Your task to perform on an android device: Open accessibility settings Image 0: 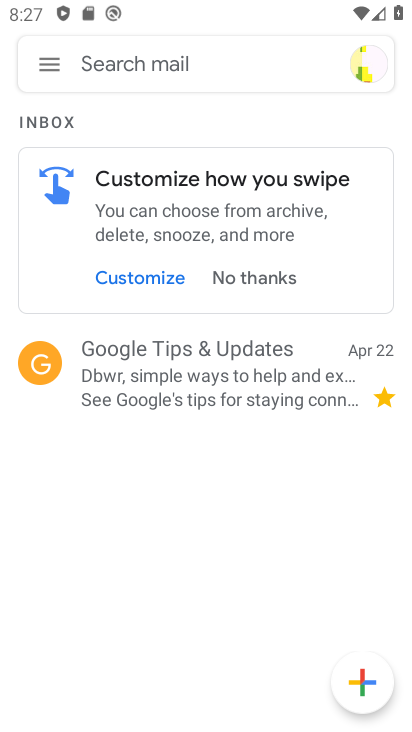
Step 0: press home button
Your task to perform on an android device: Open accessibility settings Image 1: 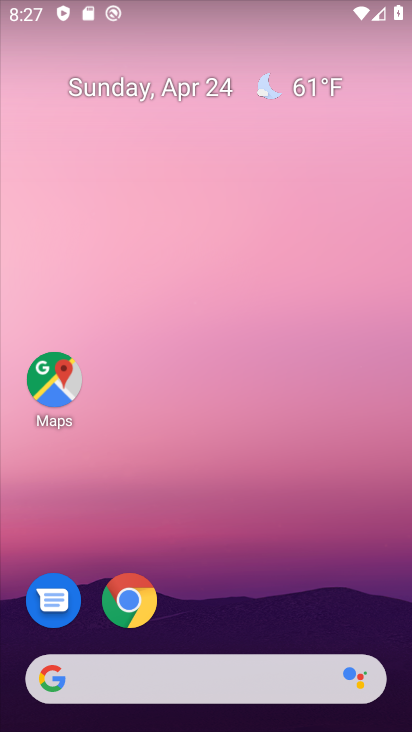
Step 1: drag from (213, 694) to (211, 188)
Your task to perform on an android device: Open accessibility settings Image 2: 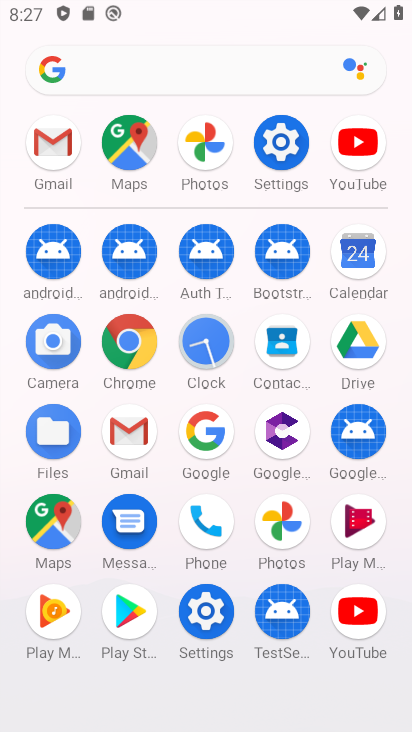
Step 2: click (203, 195)
Your task to perform on an android device: Open accessibility settings Image 3: 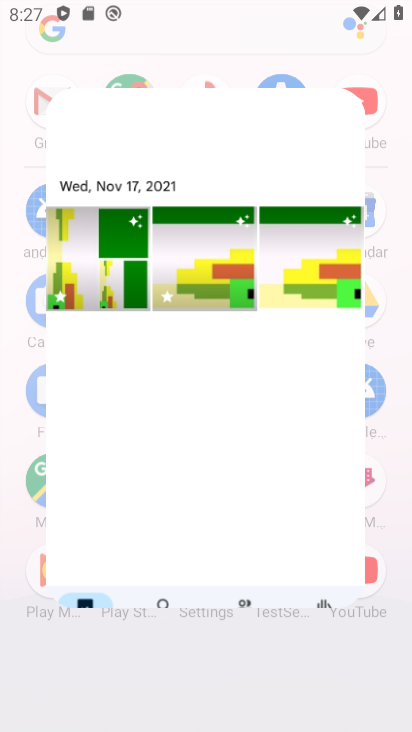
Step 3: click (293, 147)
Your task to perform on an android device: Open accessibility settings Image 4: 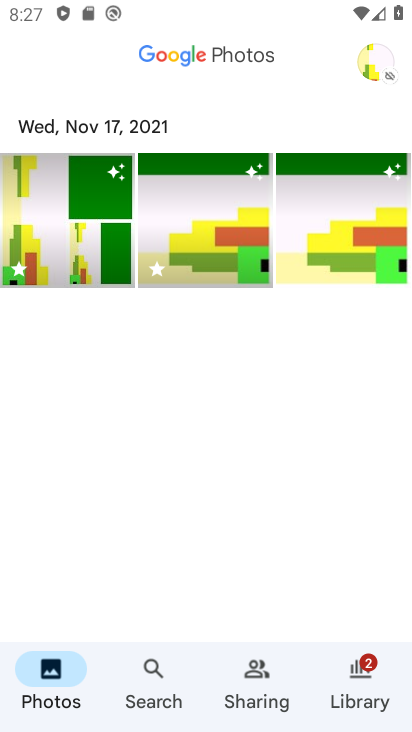
Step 4: press home button
Your task to perform on an android device: Open accessibility settings Image 5: 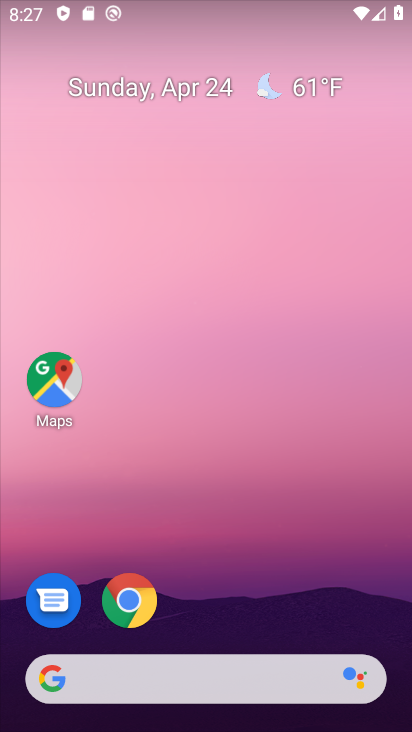
Step 5: drag from (223, 726) to (206, 175)
Your task to perform on an android device: Open accessibility settings Image 6: 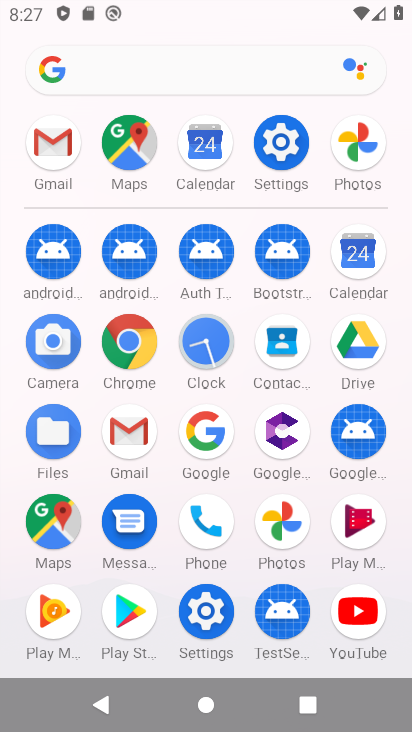
Step 6: click (287, 134)
Your task to perform on an android device: Open accessibility settings Image 7: 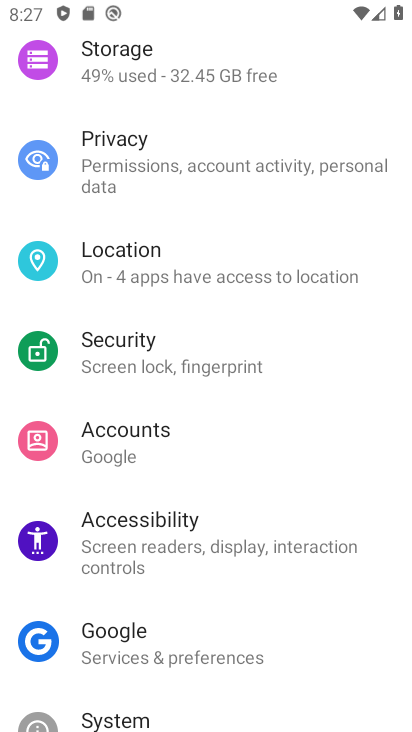
Step 7: click (146, 537)
Your task to perform on an android device: Open accessibility settings Image 8: 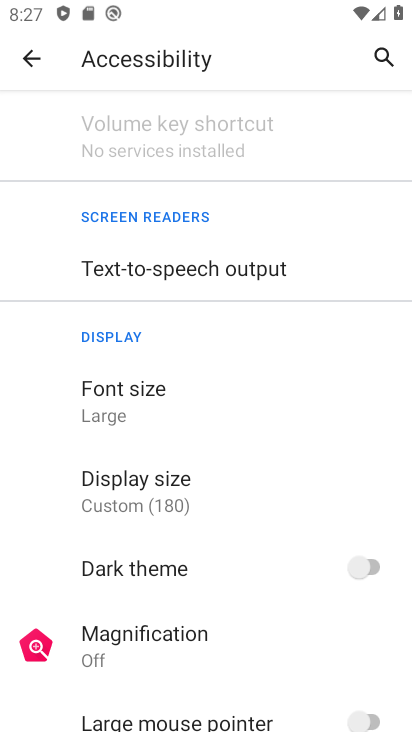
Step 8: task complete